Your task to perform on an android device: open sync settings in chrome Image 0: 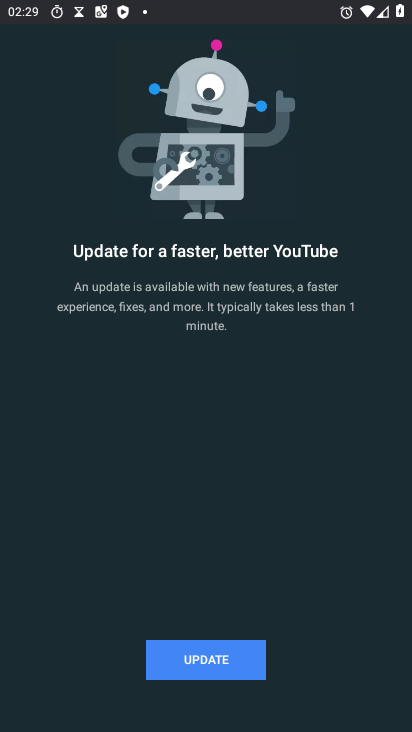
Step 0: press home button
Your task to perform on an android device: open sync settings in chrome Image 1: 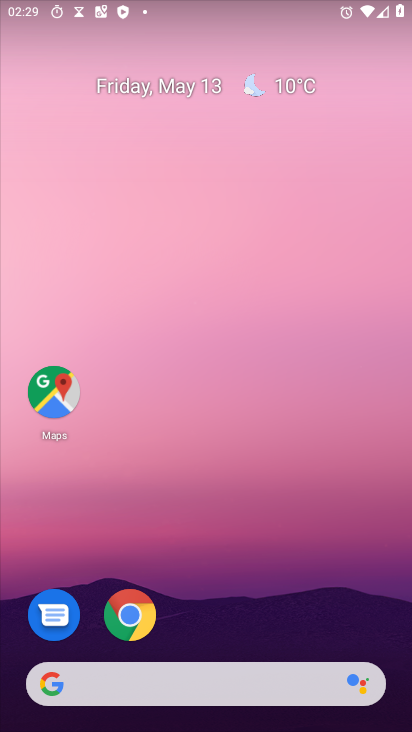
Step 1: click (131, 614)
Your task to perform on an android device: open sync settings in chrome Image 2: 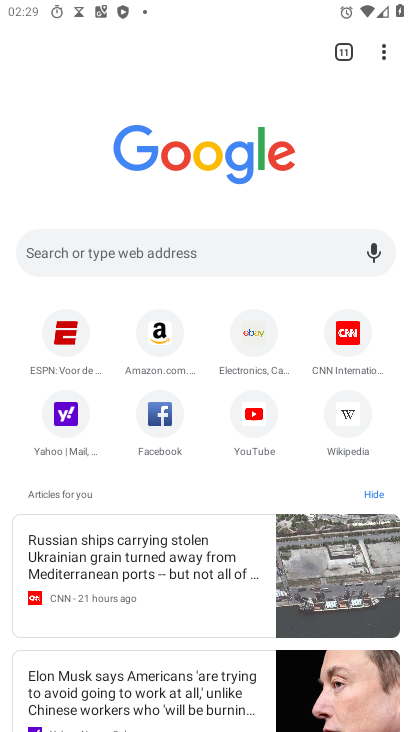
Step 2: click (381, 50)
Your task to perform on an android device: open sync settings in chrome Image 3: 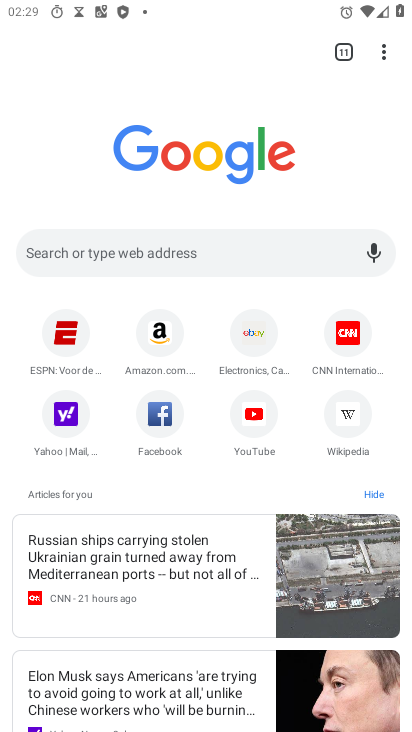
Step 3: click (381, 50)
Your task to perform on an android device: open sync settings in chrome Image 4: 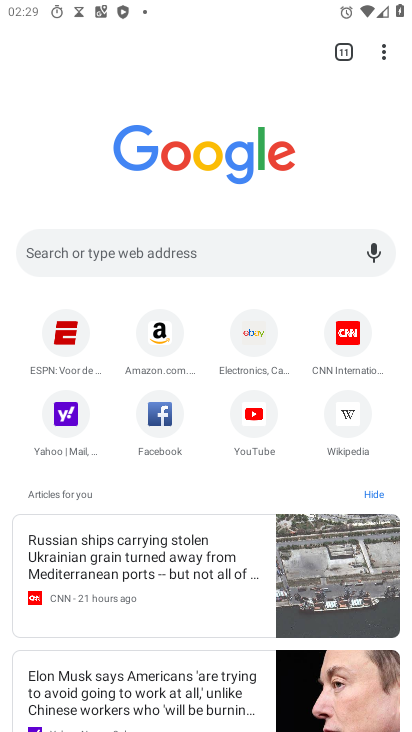
Step 4: click (382, 49)
Your task to perform on an android device: open sync settings in chrome Image 5: 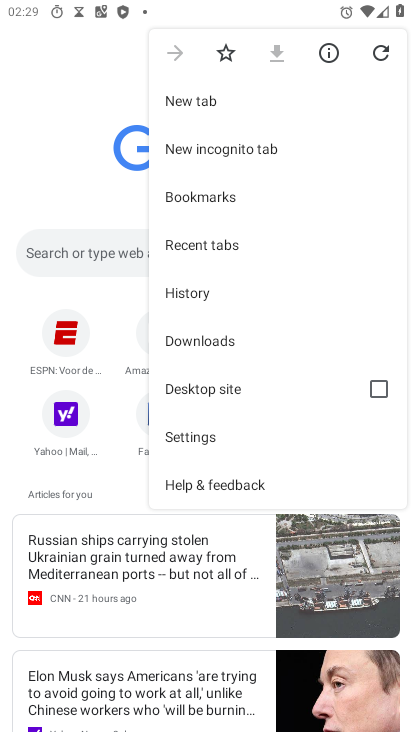
Step 5: click (199, 432)
Your task to perform on an android device: open sync settings in chrome Image 6: 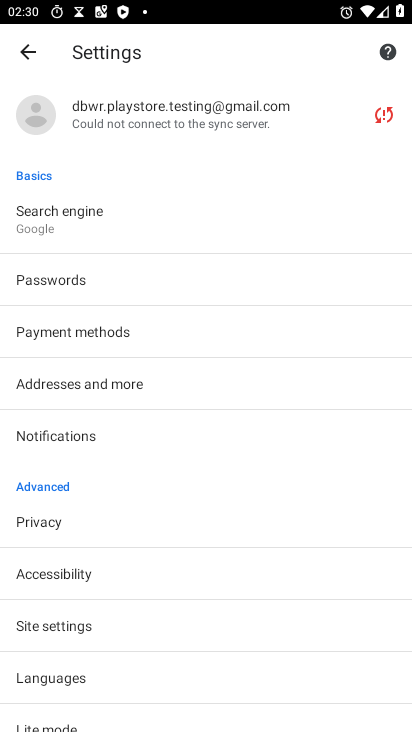
Step 6: click (56, 622)
Your task to perform on an android device: open sync settings in chrome Image 7: 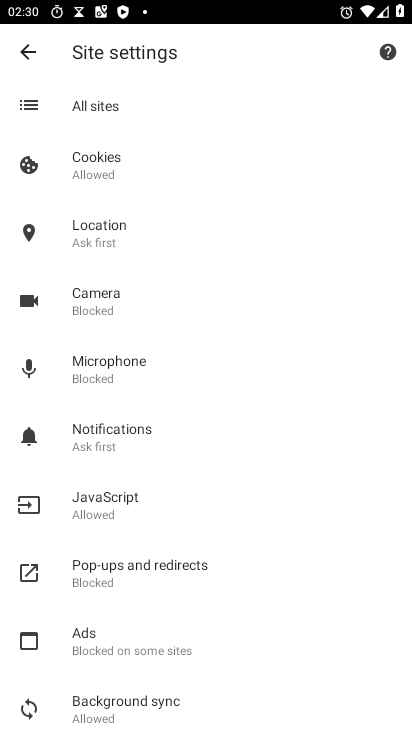
Step 7: click (109, 703)
Your task to perform on an android device: open sync settings in chrome Image 8: 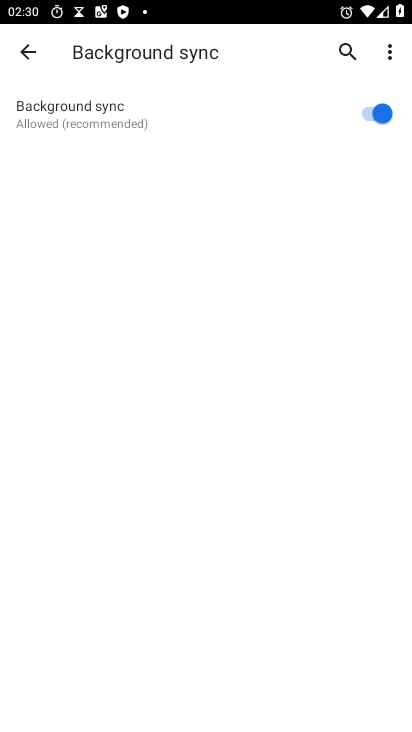
Step 8: task complete